Your task to perform on an android device: Go to Yahoo.com Image 0: 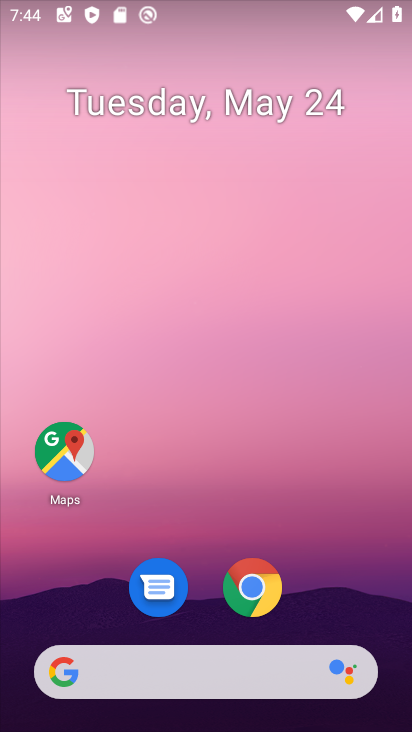
Step 0: click (252, 587)
Your task to perform on an android device: Go to Yahoo.com Image 1: 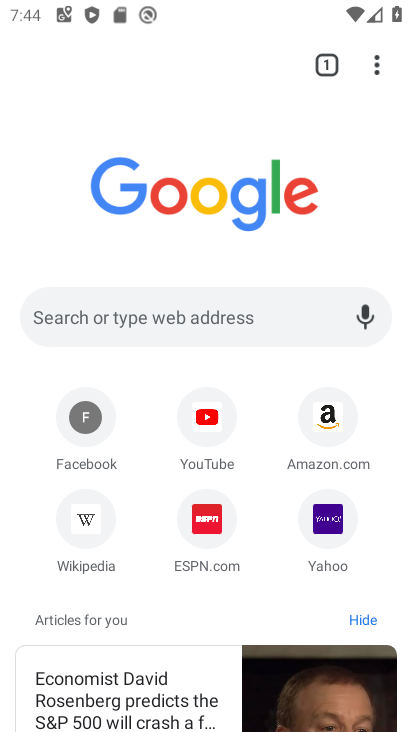
Step 1: click (323, 517)
Your task to perform on an android device: Go to Yahoo.com Image 2: 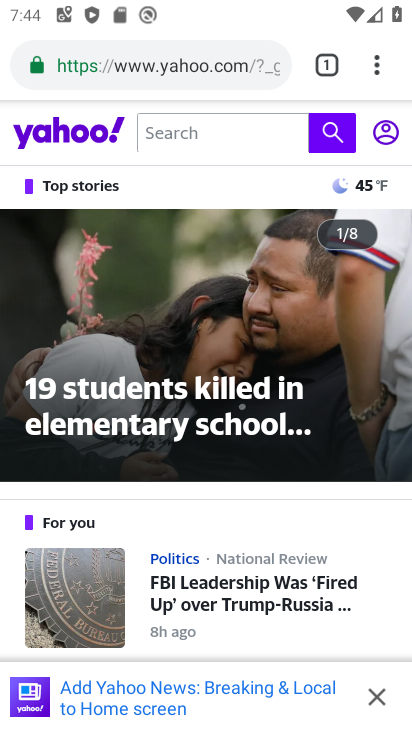
Step 2: task complete